Your task to perform on an android device: install app "Reddit" Image 0: 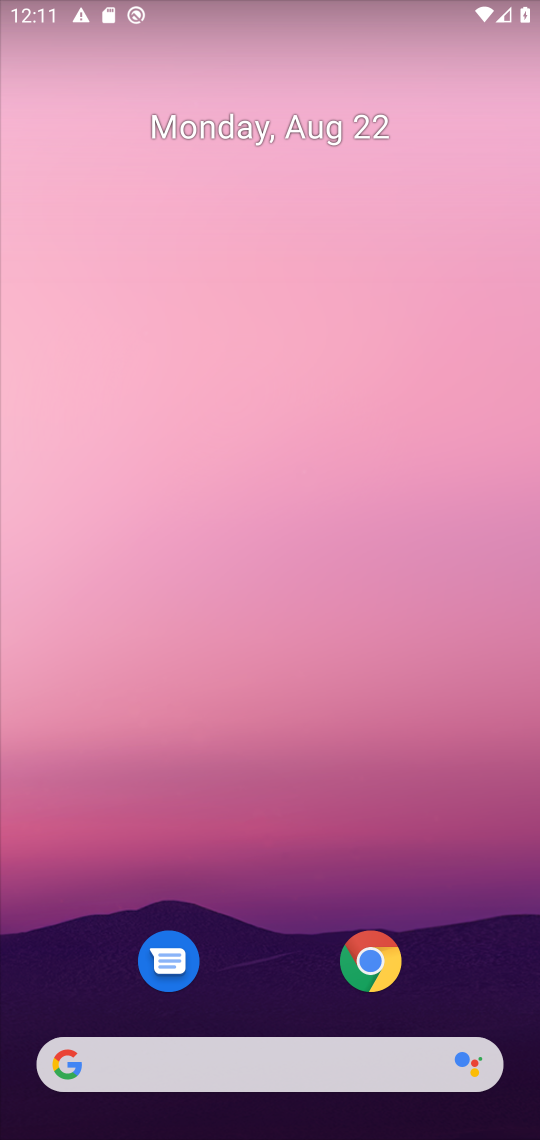
Step 0: press home button
Your task to perform on an android device: install app "Reddit" Image 1: 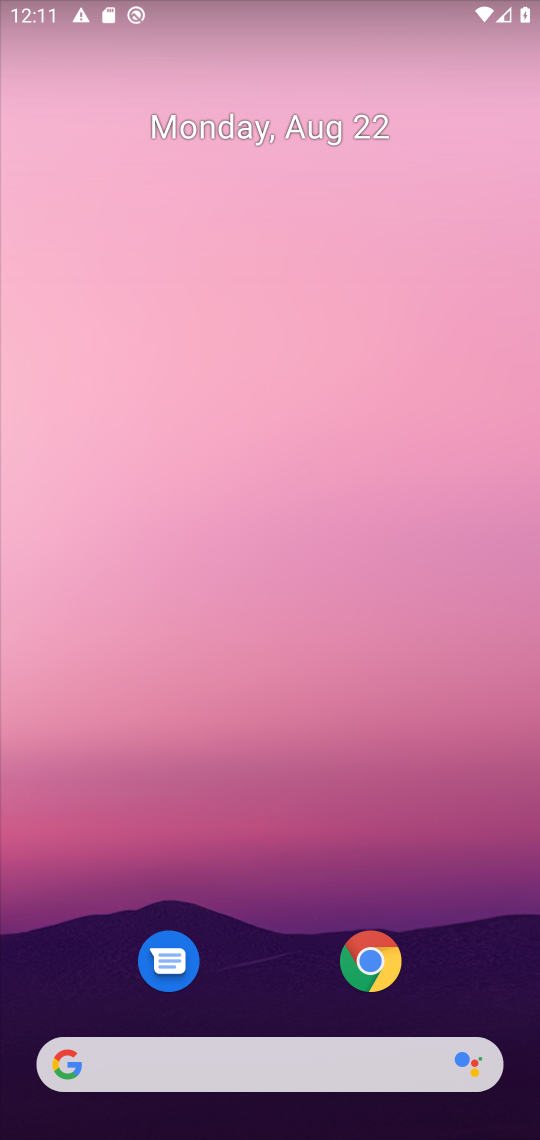
Step 1: drag from (455, 1000) to (426, 142)
Your task to perform on an android device: install app "Reddit" Image 2: 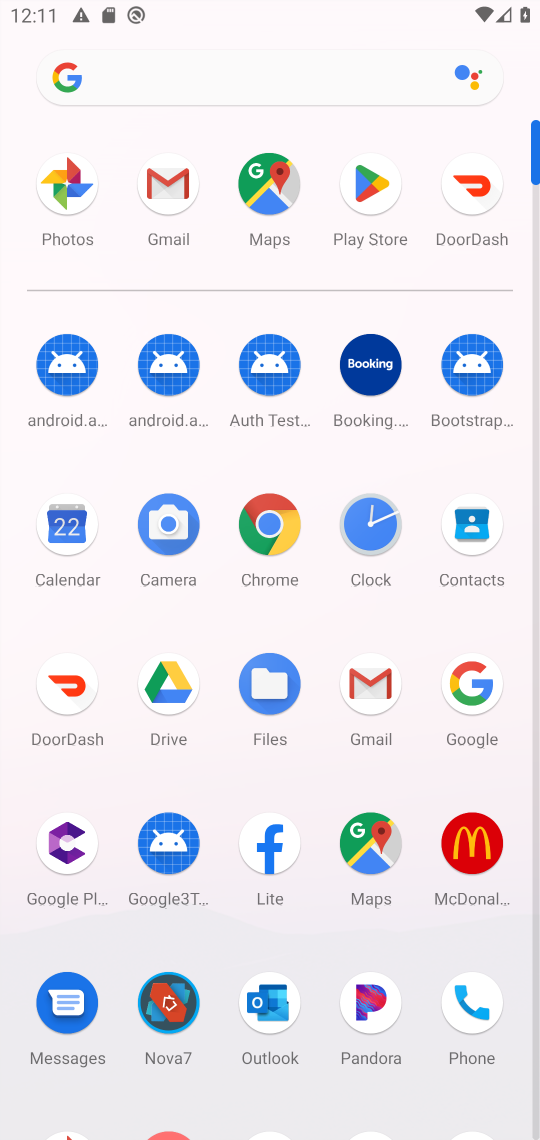
Step 2: click (371, 181)
Your task to perform on an android device: install app "Reddit" Image 3: 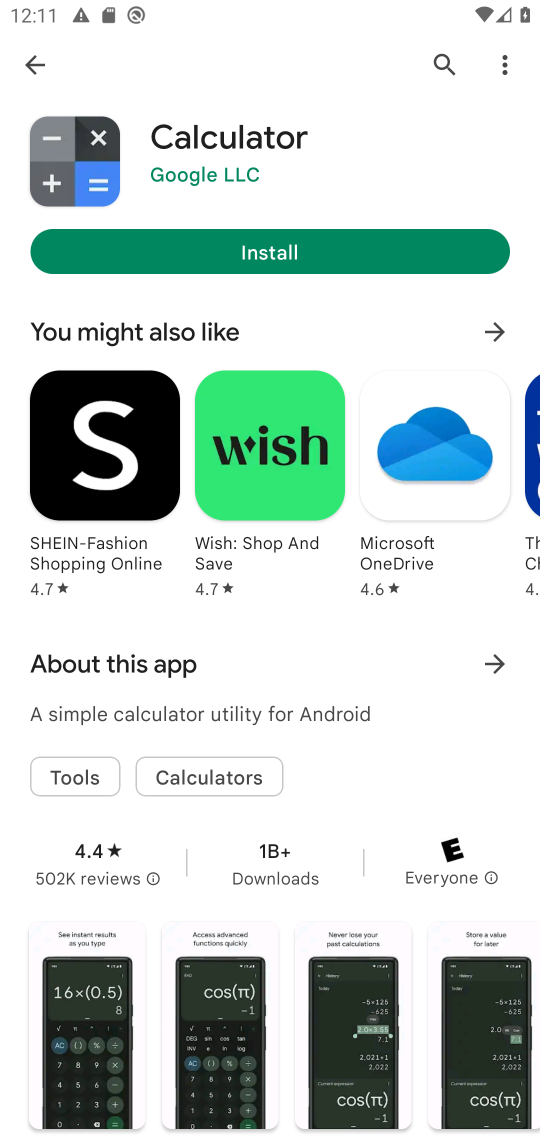
Step 3: press back button
Your task to perform on an android device: install app "Reddit" Image 4: 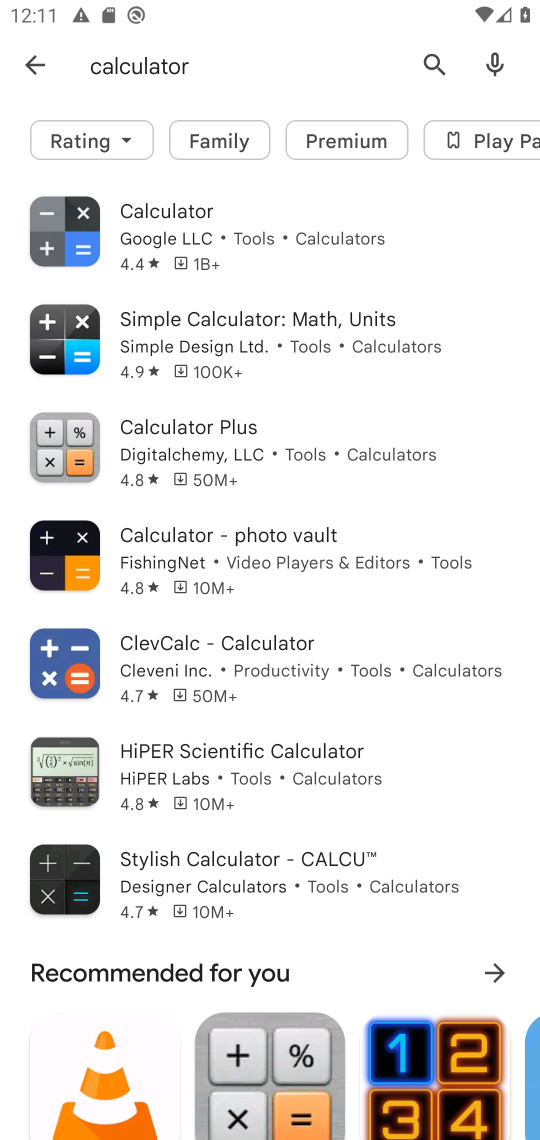
Step 4: press back button
Your task to perform on an android device: install app "Reddit" Image 5: 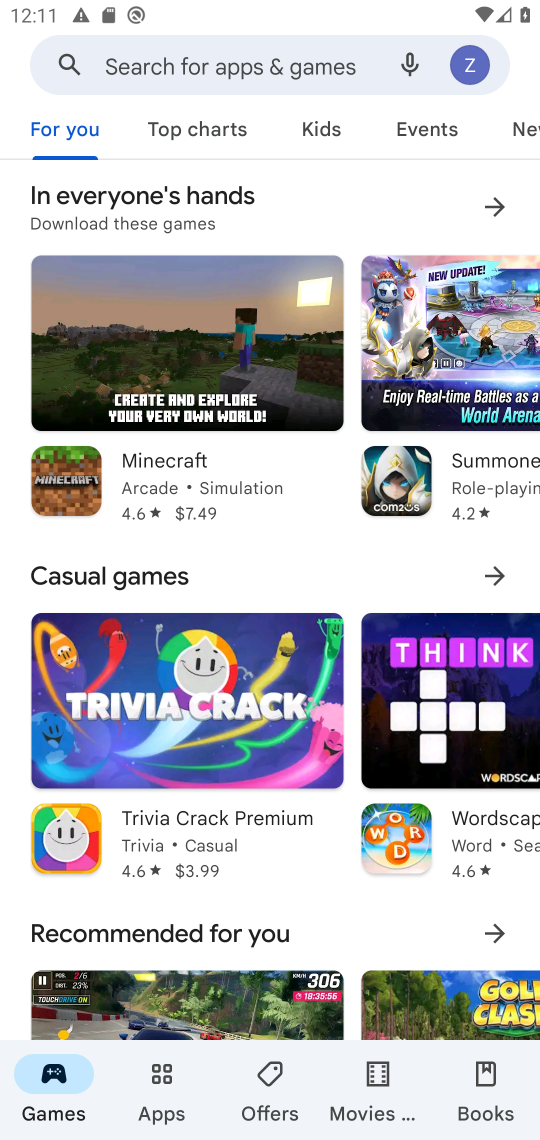
Step 5: click (259, 63)
Your task to perform on an android device: install app "Reddit" Image 6: 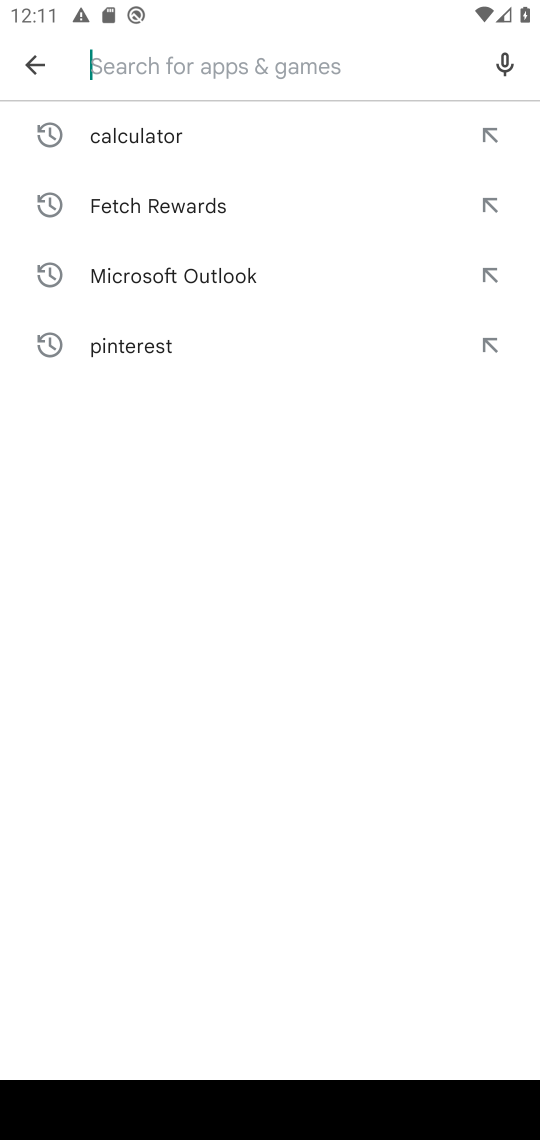
Step 6: type "reddit"
Your task to perform on an android device: install app "Reddit" Image 7: 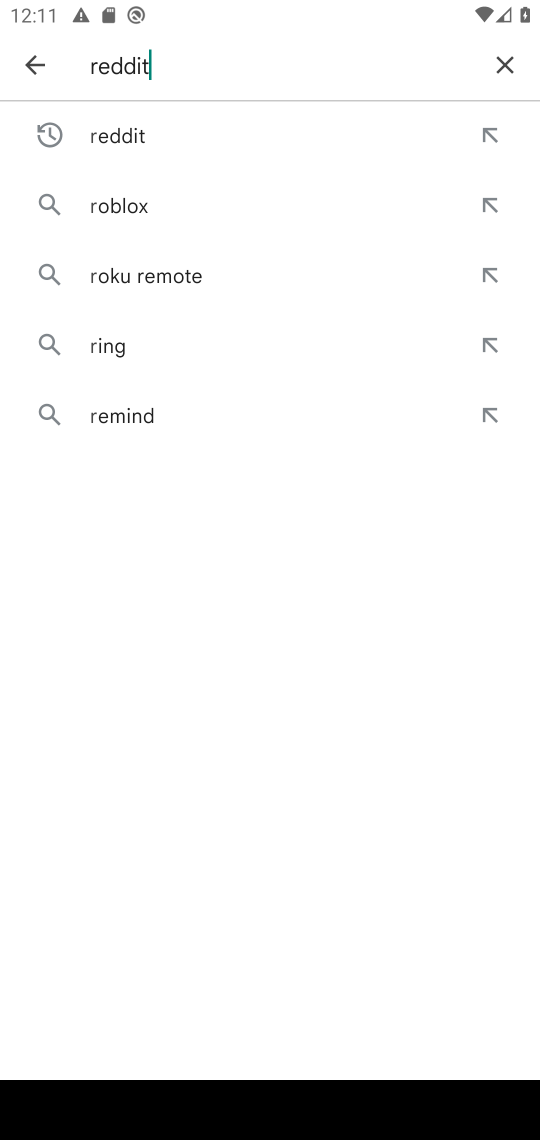
Step 7: press enter
Your task to perform on an android device: install app "Reddit" Image 8: 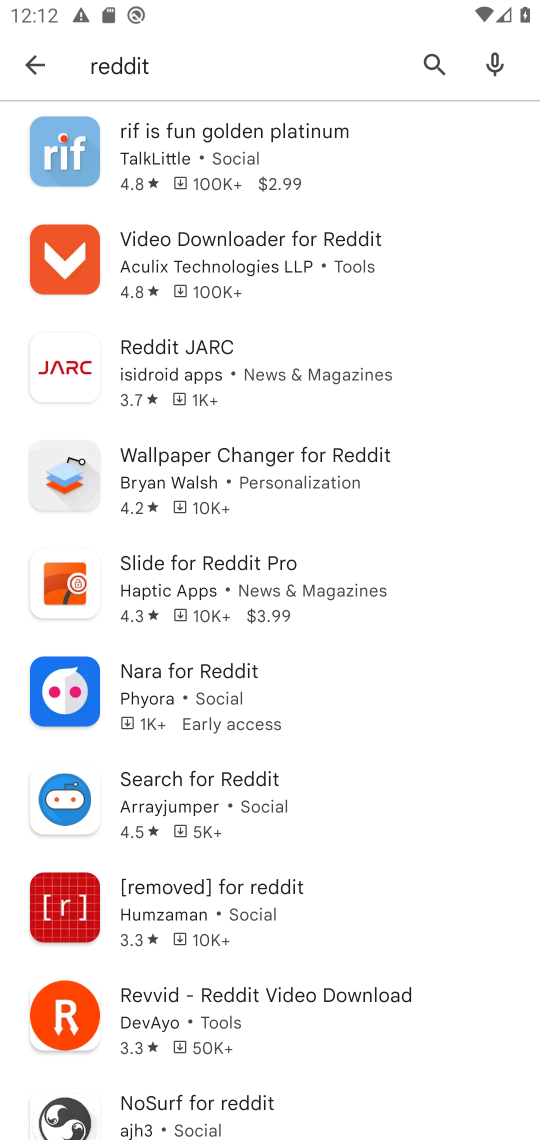
Step 8: task complete